Your task to perform on an android device: Open internet settings Image 0: 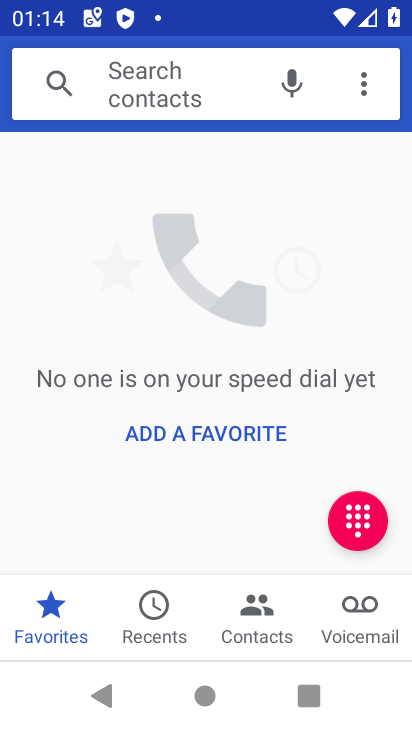
Step 0: press home button
Your task to perform on an android device: Open internet settings Image 1: 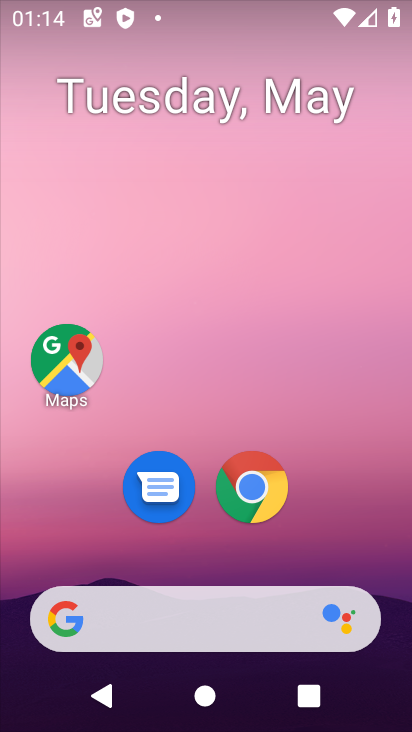
Step 1: click (257, 492)
Your task to perform on an android device: Open internet settings Image 2: 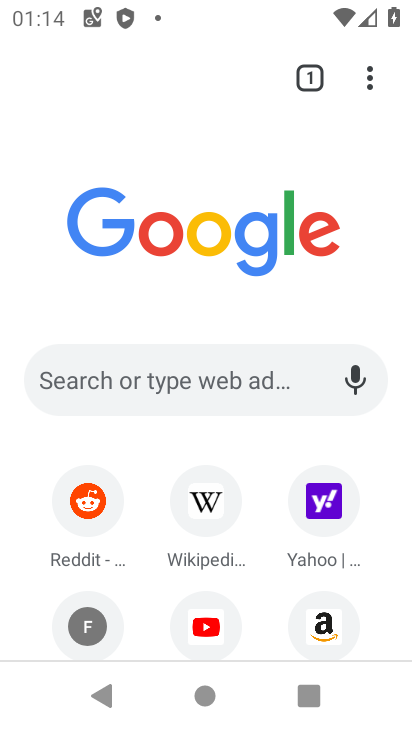
Step 2: press home button
Your task to perform on an android device: Open internet settings Image 3: 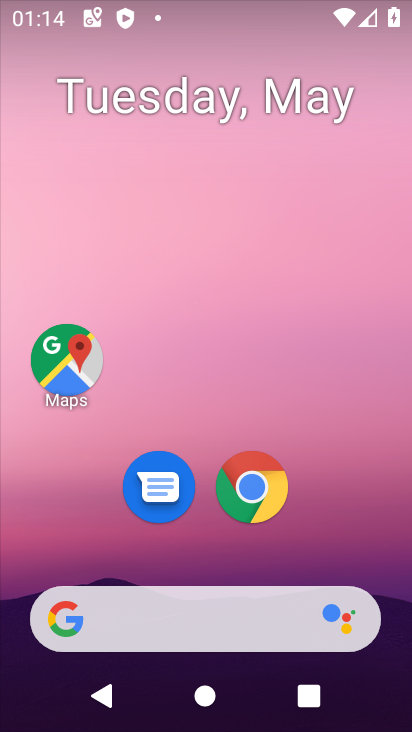
Step 3: drag from (175, 673) to (314, 129)
Your task to perform on an android device: Open internet settings Image 4: 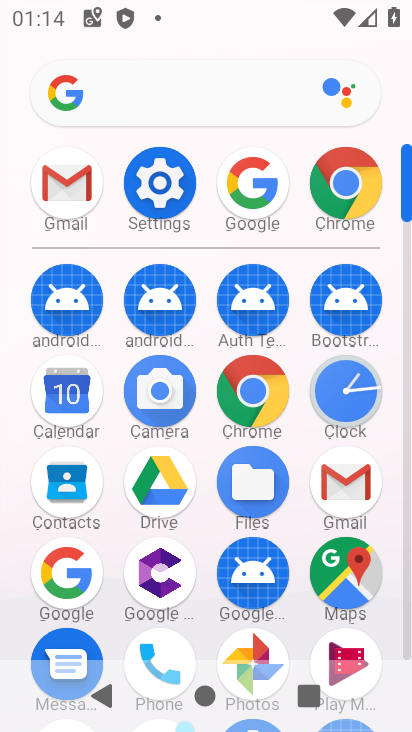
Step 4: click (150, 193)
Your task to perform on an android device: Open internet settings Image 5: 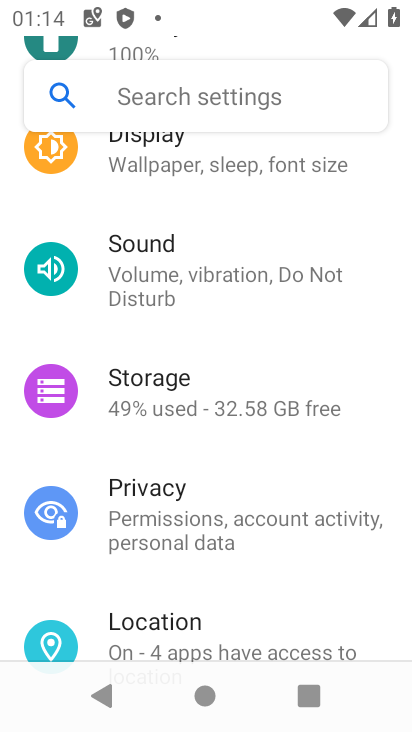
Step 5: drag from (150, 226) to (179, 489)
Your task to perform on an android device: Open internet settings Image 6: 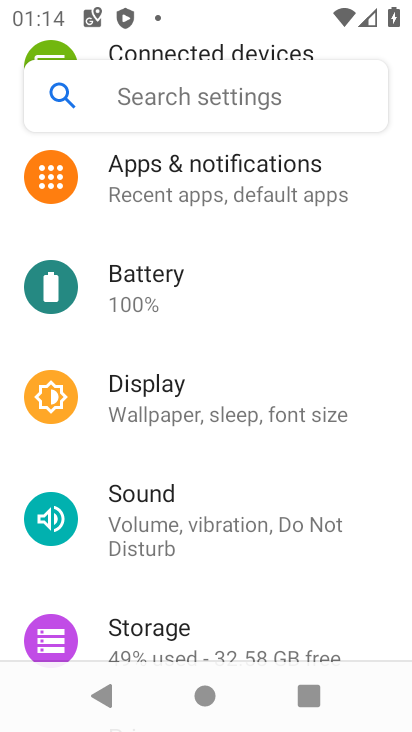
Step 6: drag from (183, 265) to (181, 492)
Your task to perform on an android device: Open internet settings Image 7: 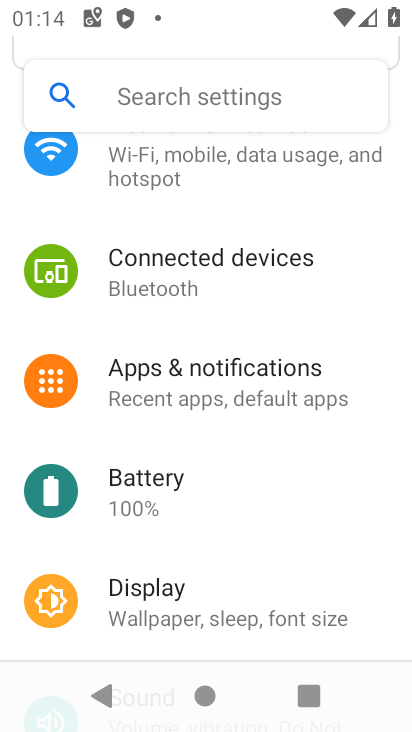
Step 7: drag from (200, 268) to (197, 504)
Your task to perform on an android device: Open internet settings Image 8: 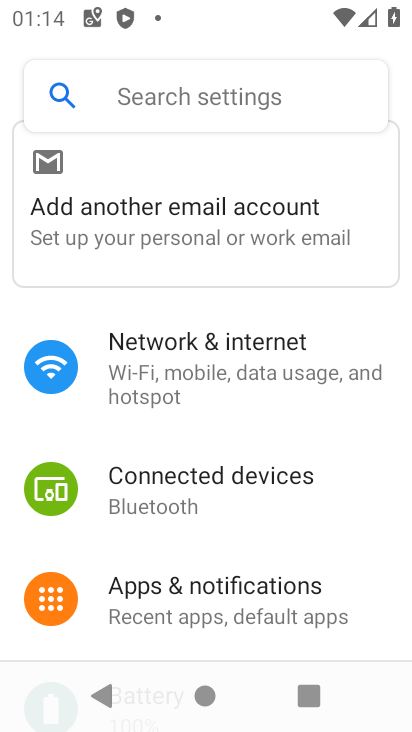
Step 8: click (194, 345)
Your task to perform on an android device: Open internet settings Image 9: 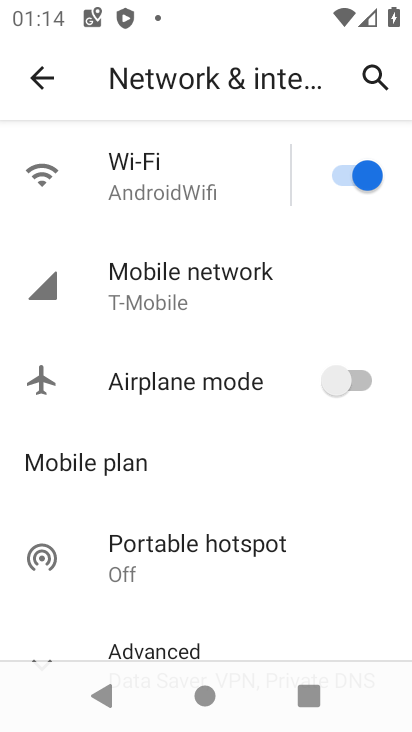
Step 9: click (178, 284)
Your task to perform on an android device: Open internet settings Image 10: 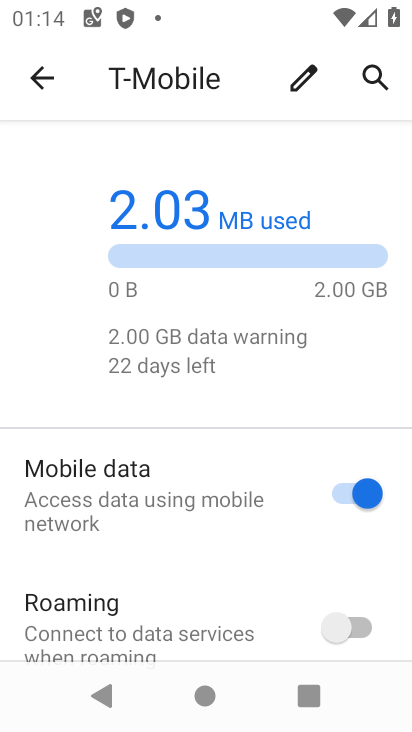
Step 10: task complete